Your task to perform on an android device: make emails show in primary in the gmail app Image 0: 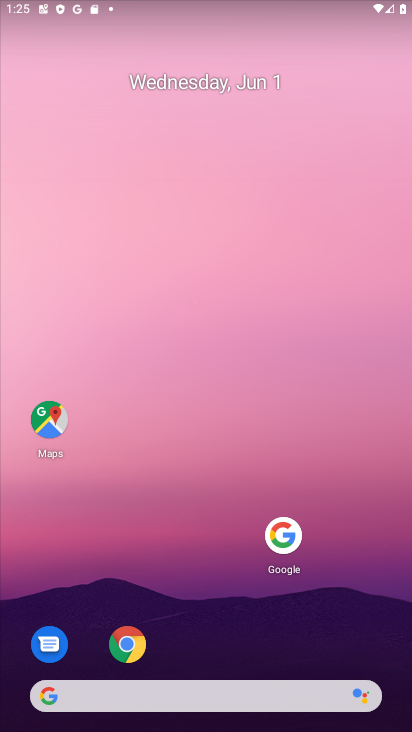
Step 0: drag from (196, 699) to (287, 193)
Your task to perform on an android device: make emails show in primary in the gmail app Image 1: 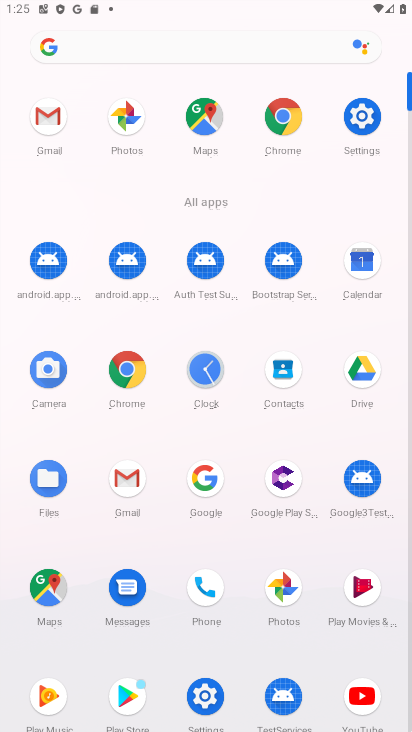
Step 1: click (51, 119)
Your task to perform on an android device: make emails show in primary in the gmail app Image 2: 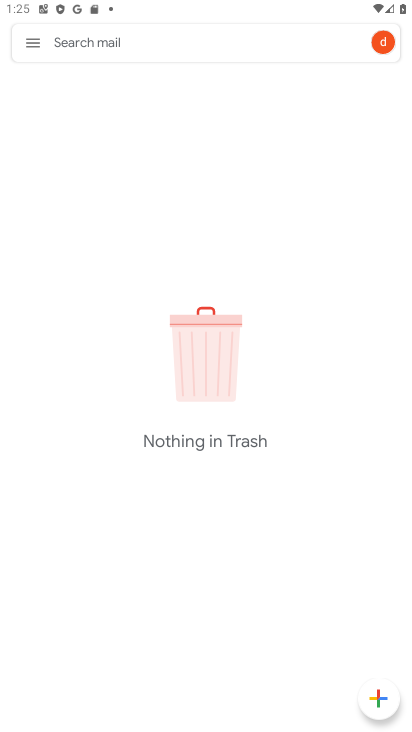
Step 2: click (31, 42)
Your task to perform on an android device: make emails show in primary in the gmail app Image 3: 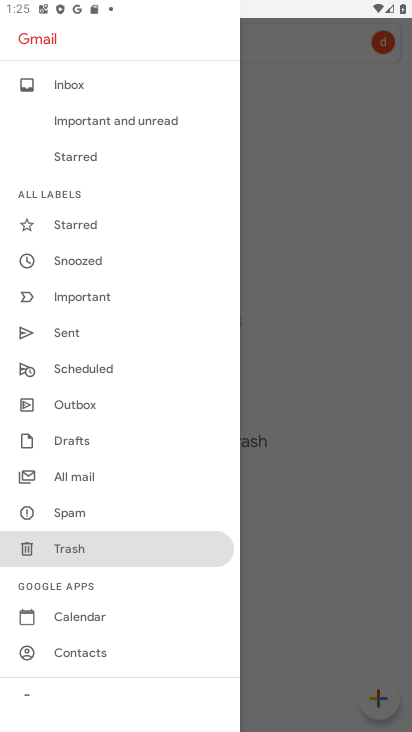
Step 3: drag from (123, 620) to (216, 179)
Your task to perform on an android device: make emails show in primary in the gmail app Image 4: 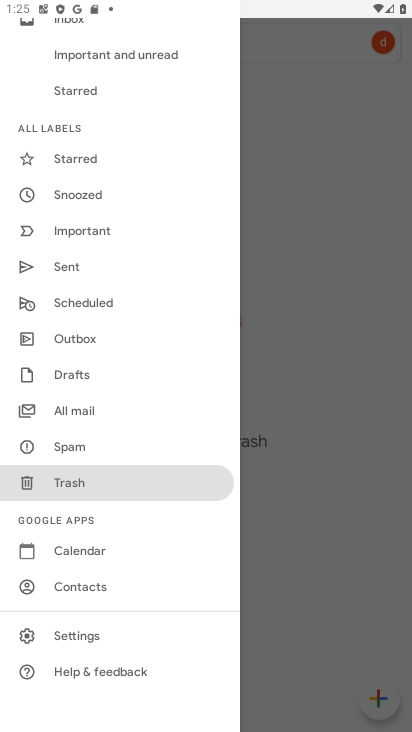
Step 4: click (94, 634)
Your task to perform on an android device: make emails show in primary in the gmail app Image 5: 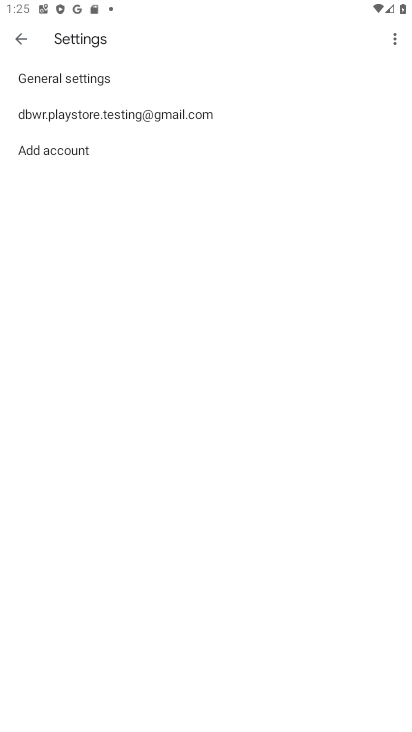
Step 5: click (162, 112)
Your task to perform on an android device: make emails show in primary in the gmail app Image 6: 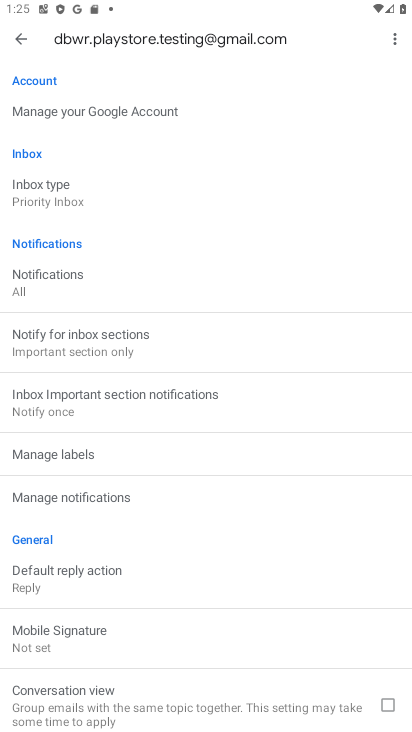
Step 6: task complete